Your task to perform on an android device: toggle sleep mode Image 0: 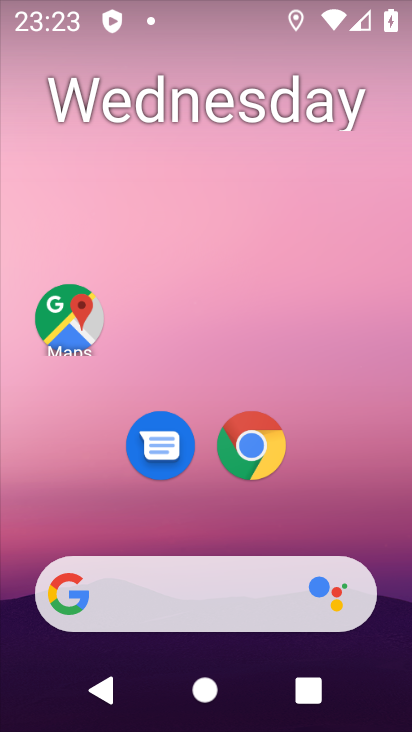
Step 0: drag from (176, 538) to (227, 71)
Your task to perform on an android device: toggle sleep mode Image 1: 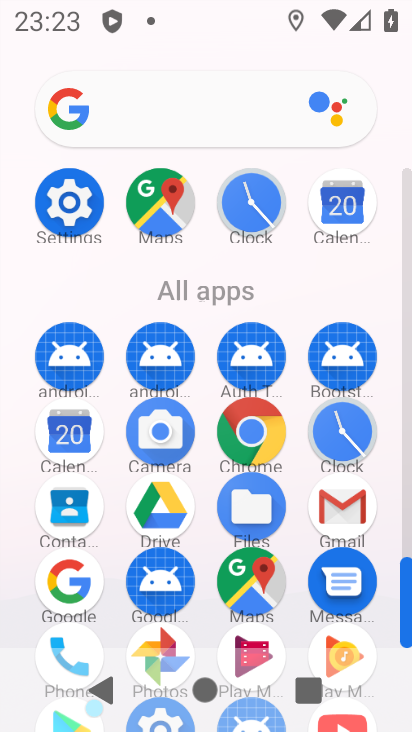
Step 1: click (86, 200)
Your task to perform on an android device: toggle sleep mode Image 2: 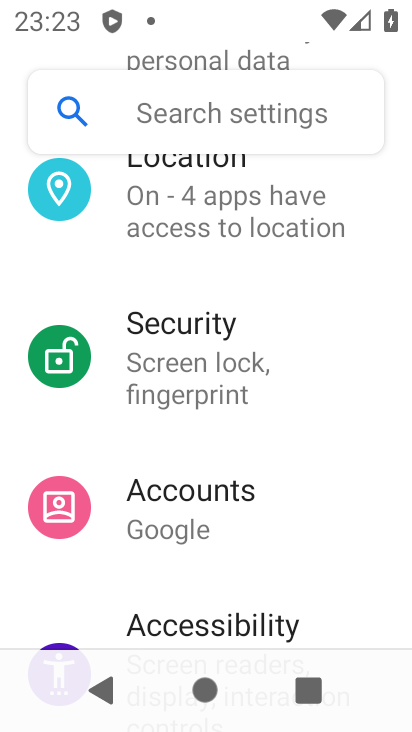
Step 2: click (216, 114)
Your task to perform on an android device: toggle sleep mode Image 3: 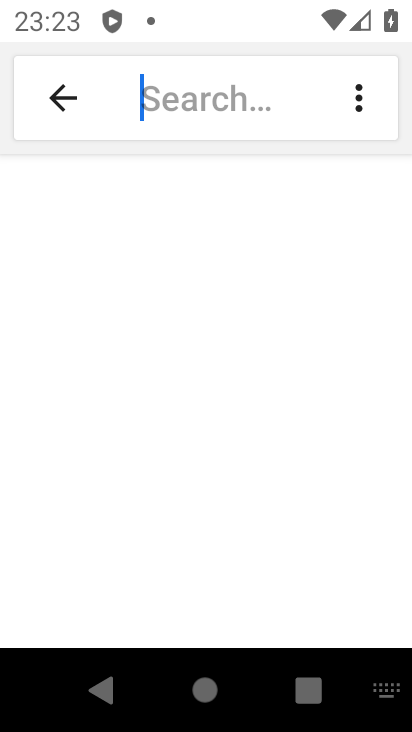
Step 3: type "sleep mode"
Your task to perform on an android device: toggle sleep mode Image 4: 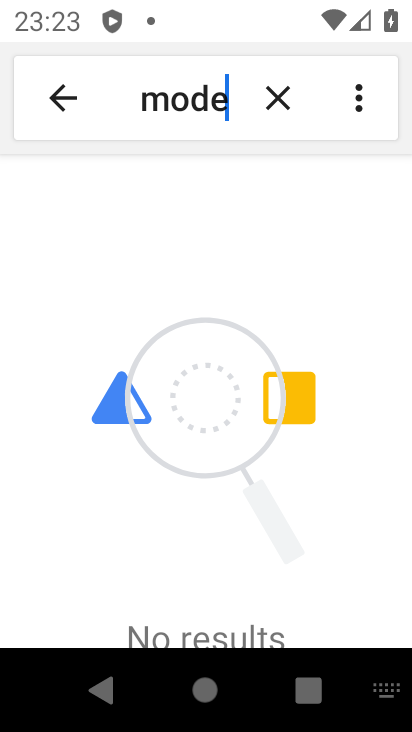
Step 4: task complete